Your task to perform on an android device: set the stopwatch Image 0: 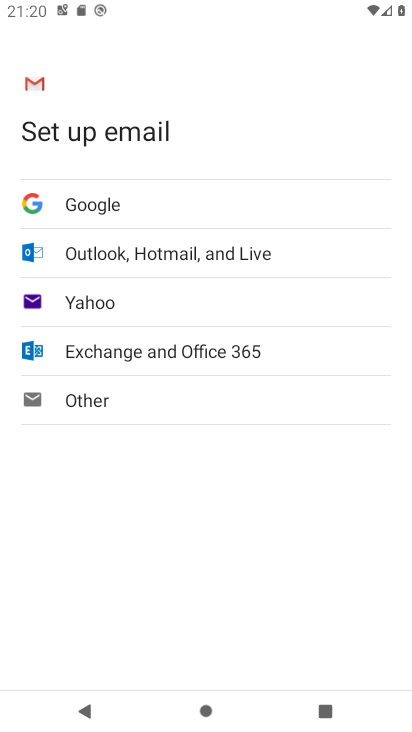
Step 0: press home button
Your task to perform on an android device: set the stopwatch Image 1: 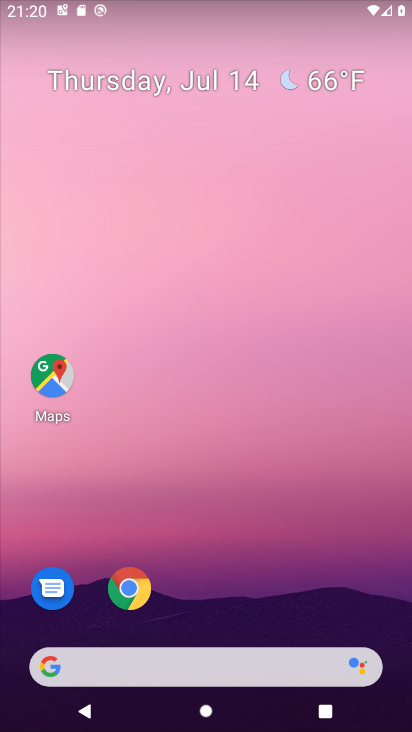
Step 1: drag from (333, 621) to (348, 213)
Your task to perform on an android device: set the stopwatch Image 2: 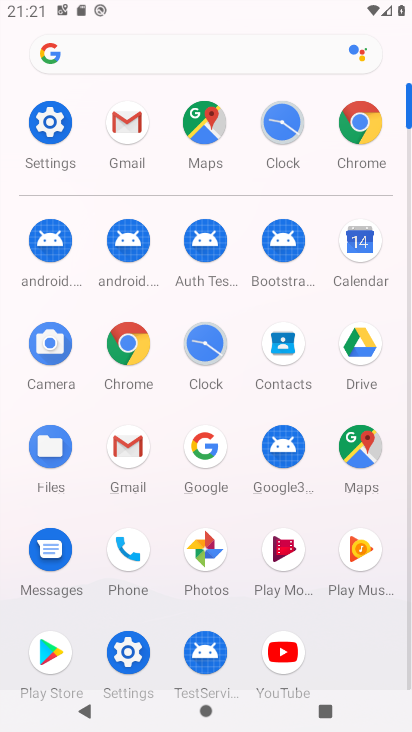
Step 2: click (219, 324)
Your task to perform on an android device: set the stopwatch Image 3: 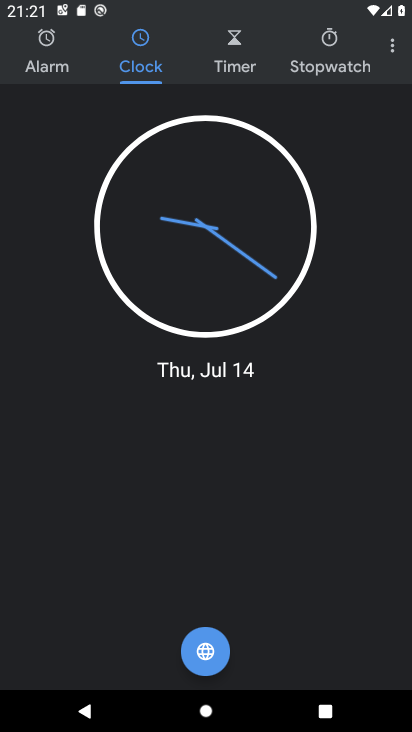
Step 3: click (344, 54)
Your task to perform on an android device: set the stopwatch Image 4: 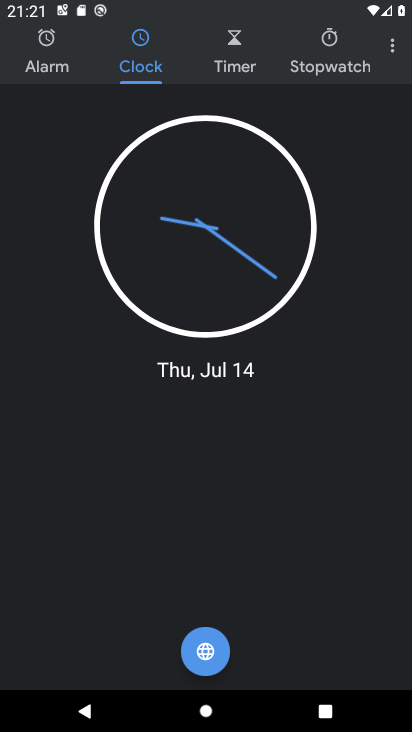
Step 4: click (325, 49)
Your task to perform on an android device: set the stopwatch Image 5: 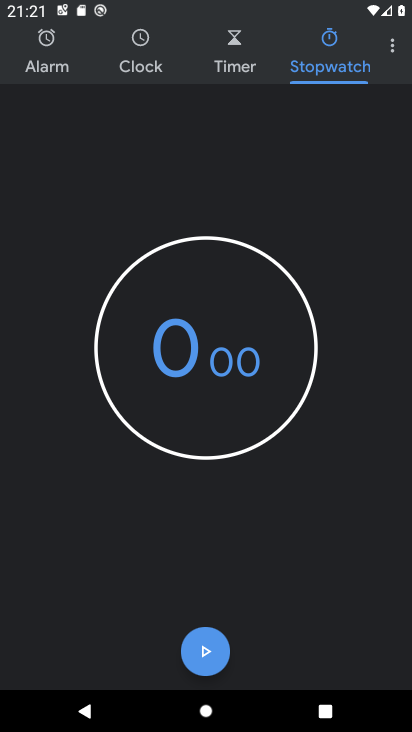
Step 5: click (212, 653)
Your task to perform on an android device: set the stopwatch Image 6: 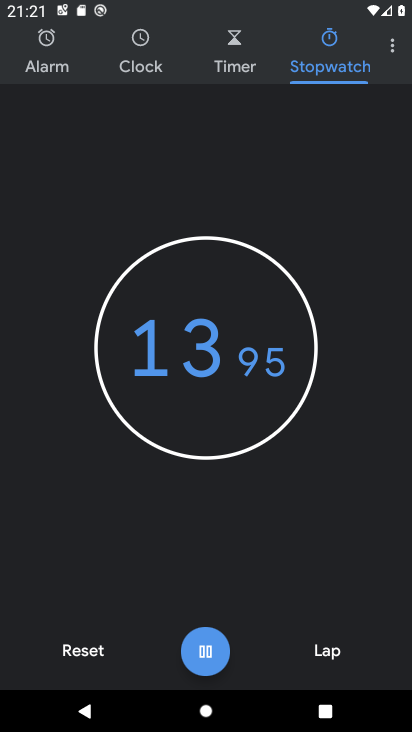
Step 6: task complete